Your task to perform on an android device: turn off location history Image 0: 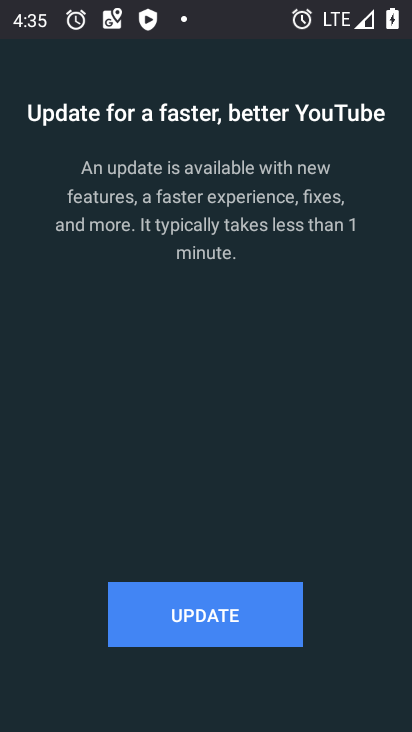
Step 0: press home button
Your task to perform on an android device: turn off location history Image 1: 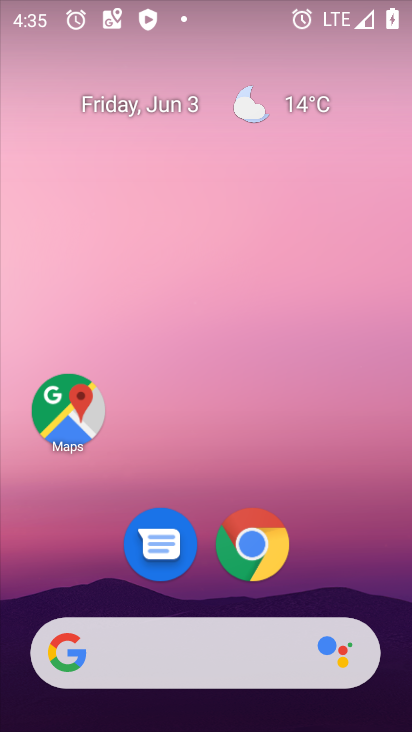
Step 1: click (67, 407)
Your task to perform on an android device: turn off location history Image 2: 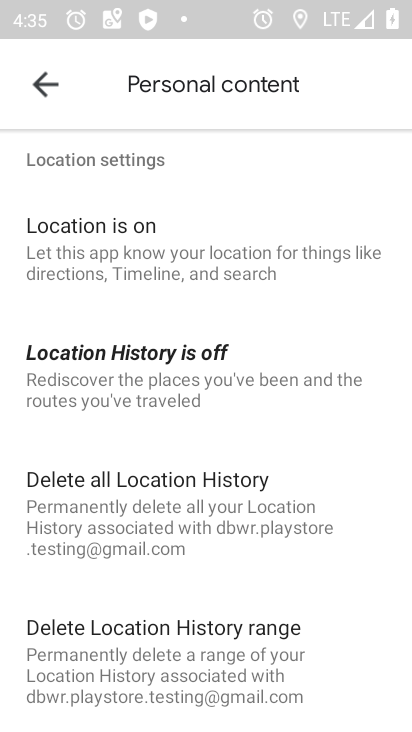
Step 2: task complete